Your task to perform on an android device: turn on javascript in the chrome app Image 0: 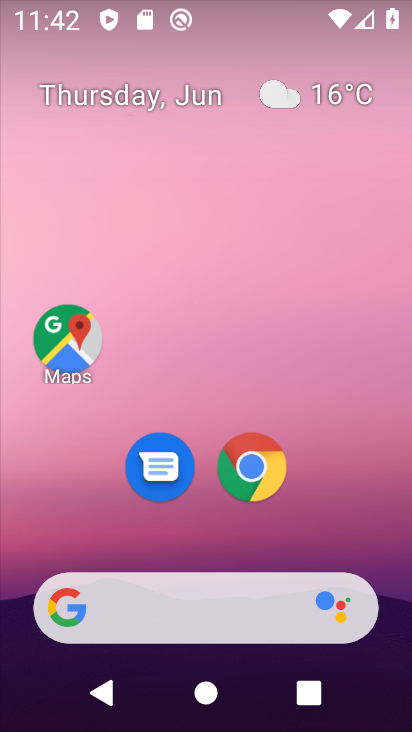
Step 0: click (256, 469)
Your task to perform on an android device: turn on javascript in the chrome app Image 1: 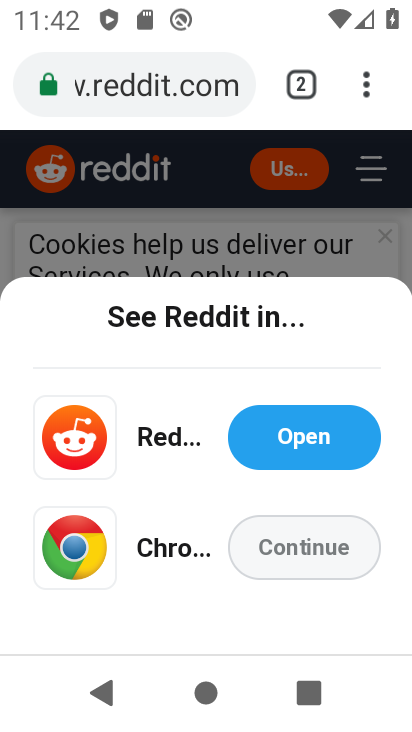
Step 1: click (365, 93)
Your task to perform on an android device: turn on javascript in the chrome app Image 2: 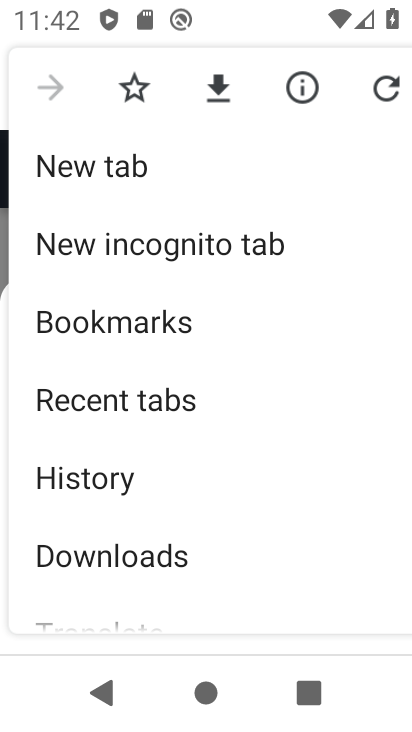
Step 2: drag from (241, 586) to (260, 201)
Your task to perform on an android device: turn on javascript in the chrome app Image 3: 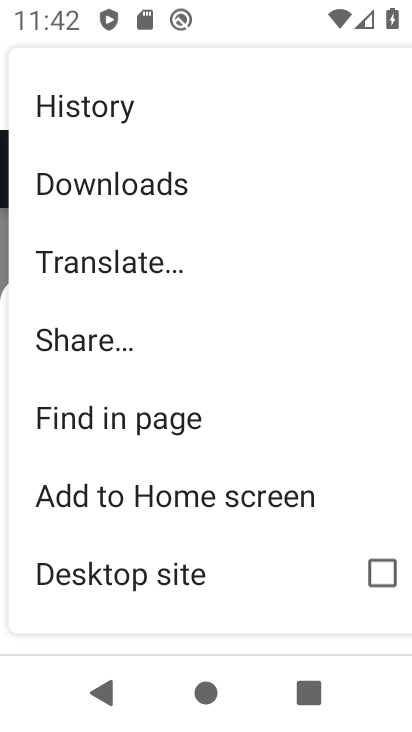
Step 3: drag from (288, 588) to (299, 177)
Your task to perform on an android device: turn on javascript in the chrome app Image 4: 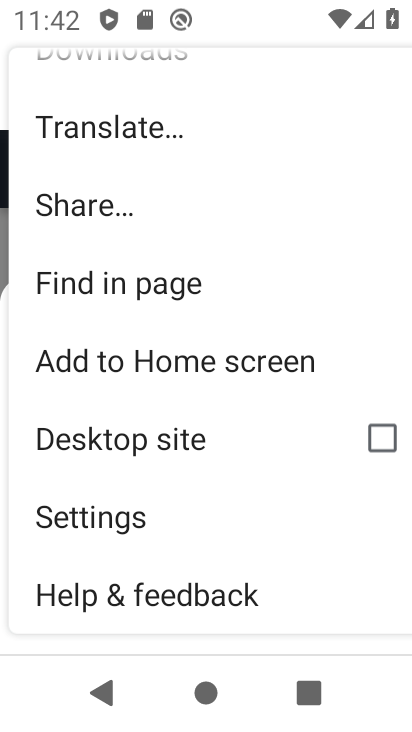
Step 4: click (90, 506)
Your task to perform on an android device: turn on javascript in the chrome app Image 5: 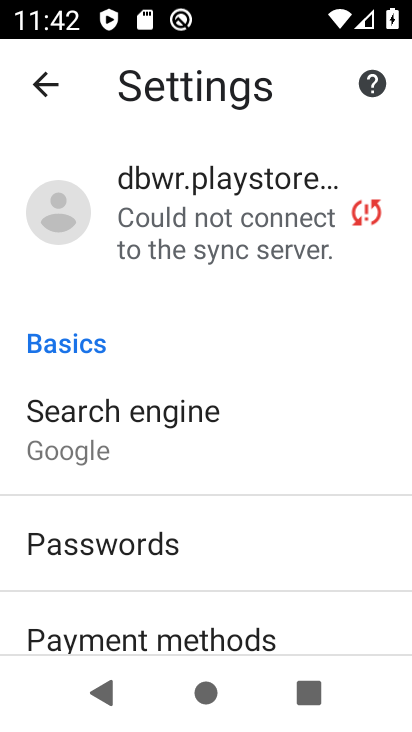
Step 5: drag from (330, 626) to (294, 231)
Your task to perform on an android device: turn on javascript in the chrome app Image 6: 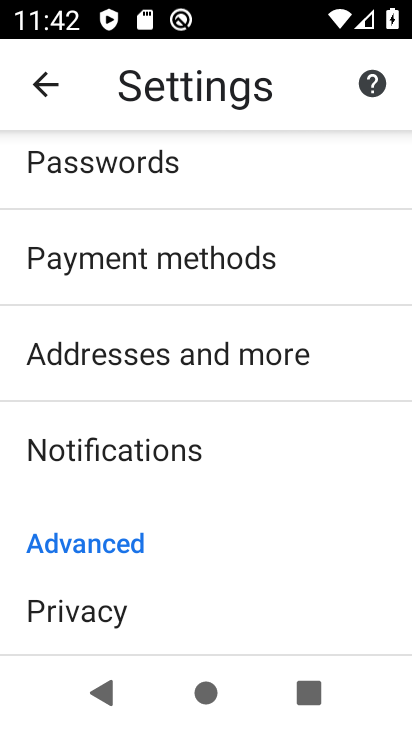
Step 6: drag from (249, 554) to (297, 202)
Your task to perform on an android device: turn on javascript in the chrome app Image 7: 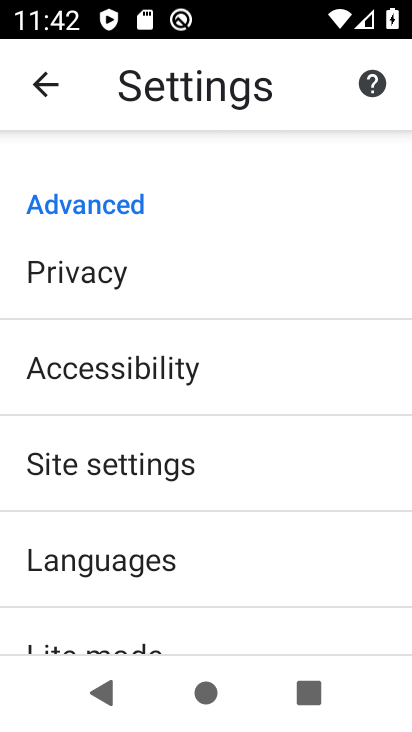
Step 7: click (94, 482)
Your task to perform on an android device: turn on javascript in the chrome app Image 8: 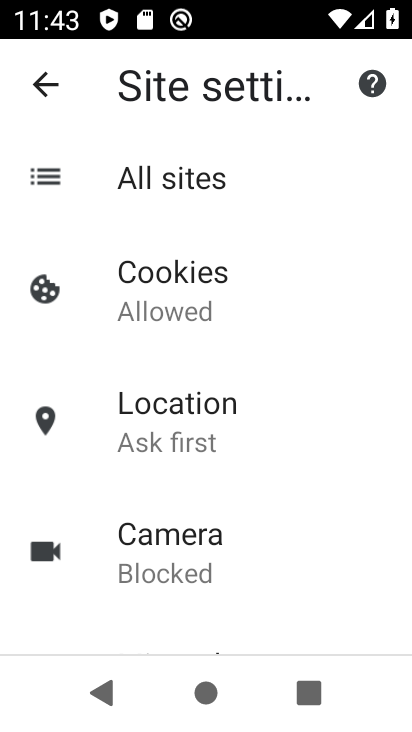
Step 8: drag from (283, 577) to (265, 30)
Your task to perform on an android device: turn on javascript in the chrome app Image 9: 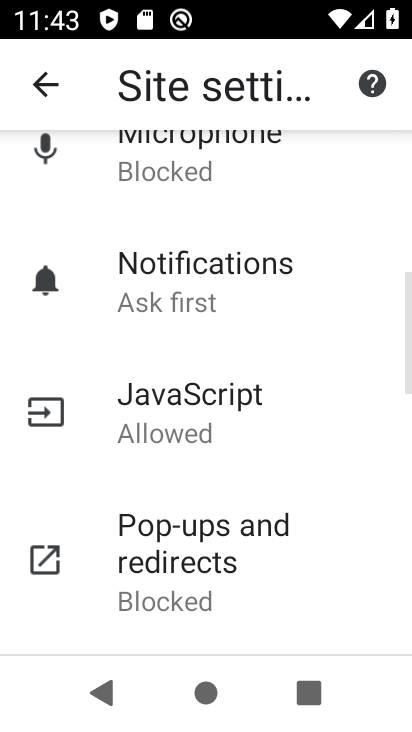
Step 9: click (164, 400)
Your task to perform on an android device: turn on javascript in the chrome app Image 10: 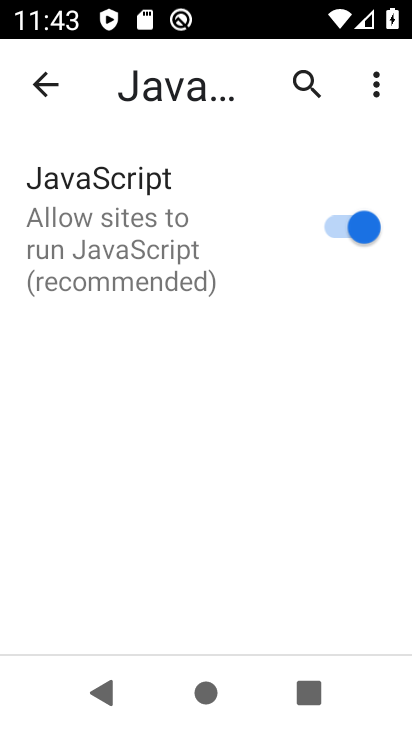
Step 10: task complete